Your task to perform on an android device: Go to wifi settings Image 0: 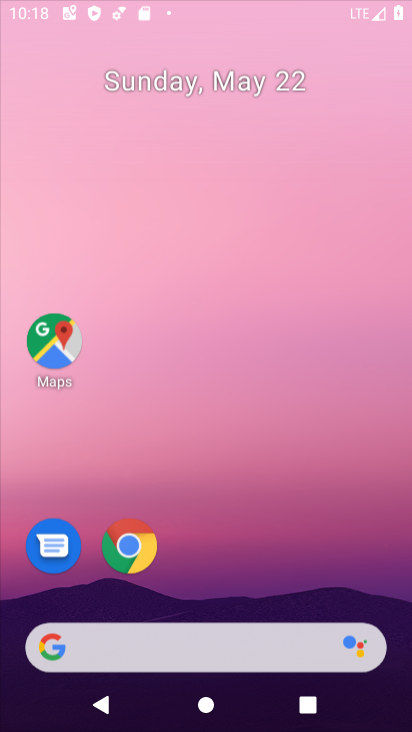
Step 0: click (308, 318)
Your task to perform on an android device: Go to wifi settings Image 1: 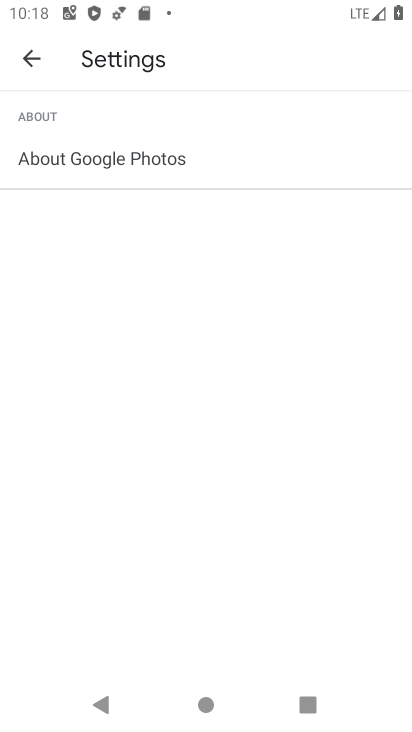
Step 1: press home button
Your task to perform on an android device: Go to wifi settings Image 2: 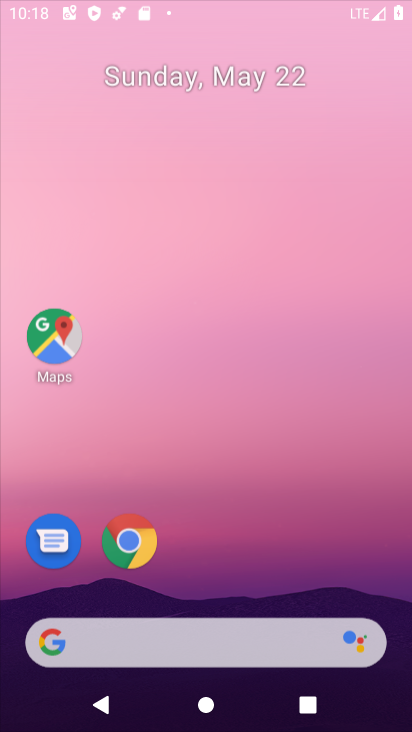
Step 2: drag from (191, 629) to (258, 155)
Your task to perform on an android device: Go to wifi settings Image 3: 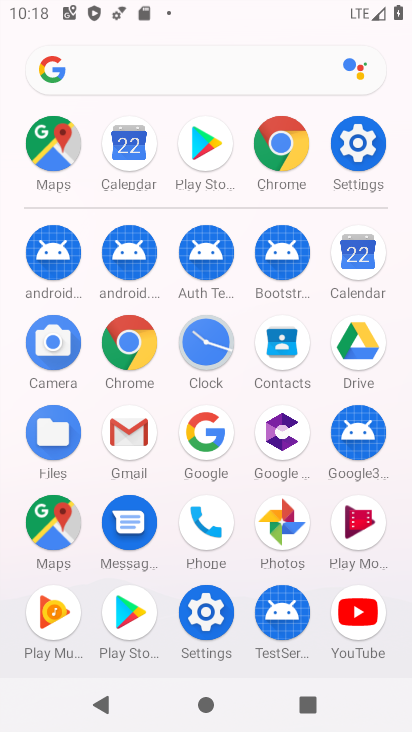
Step 3: click (352, 140)
Your task to perform on an android device: Go to wifi settings Image 4: 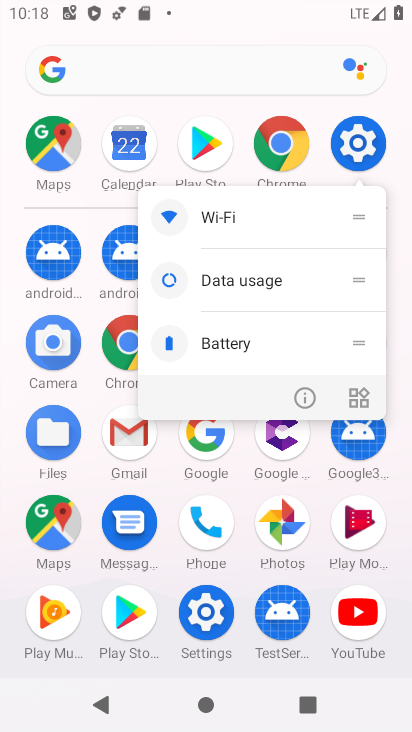
Step 4: click (251, 230)
Your task to perform on an android device: Go to wifi settings Image 5: 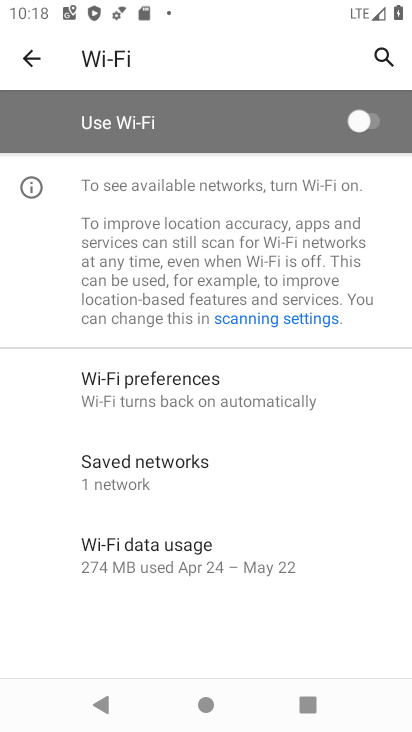
Step 5: click (367, 181)
Your task to perform on an android device: Go to wifi settings Image 6: 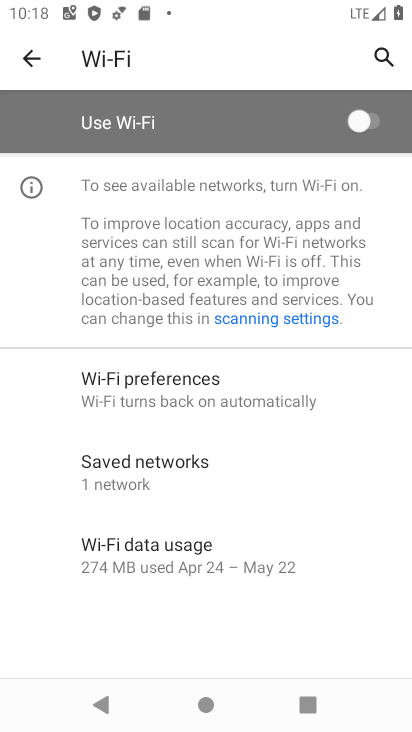
Step 6: drag from (297, 533) to (297, 315)
Your task to perform on an android device: Go to wifi settings Image 7: 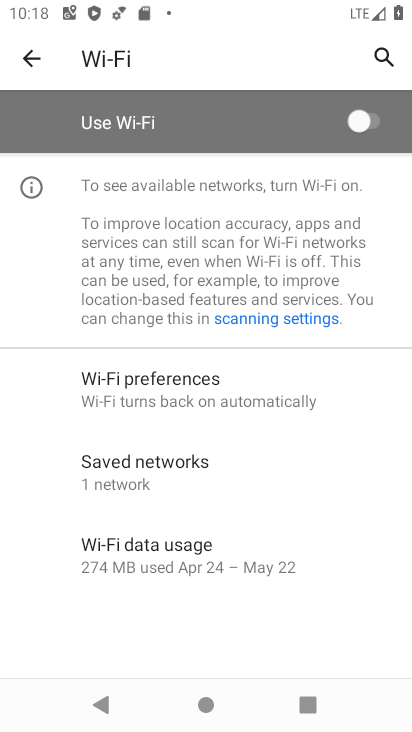
Step 7: click (304, 225)
Your task to perform on an android device: Go to wifi settings Image 8: 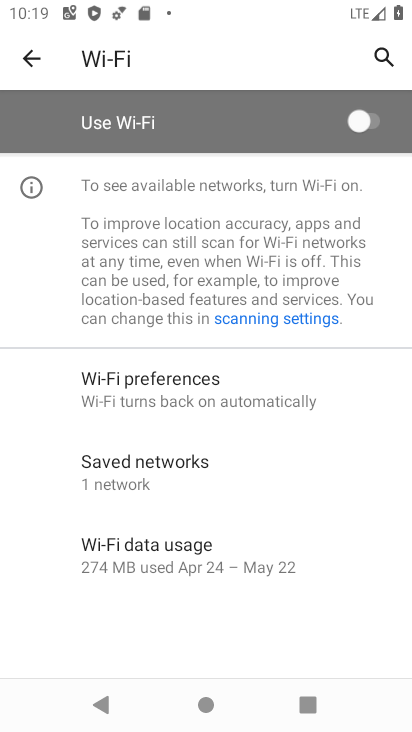
Step 8: task complete